Your task to perform on an android device: Open my contact list Image 0: 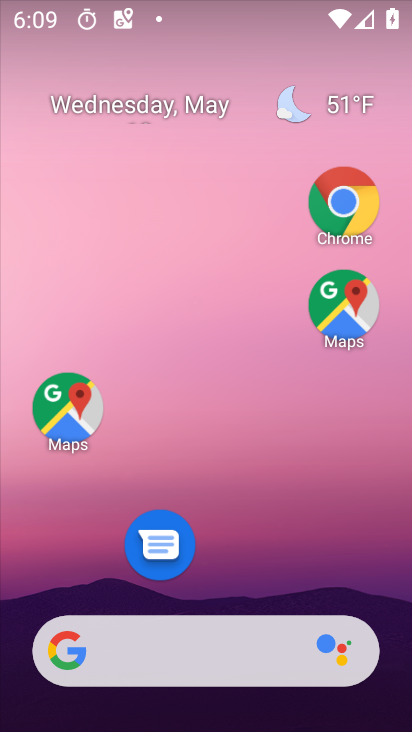
Step 0: drag from (257, 547) to (232, 119)
Your task to perform on an android device: Open my contact list Image 1: 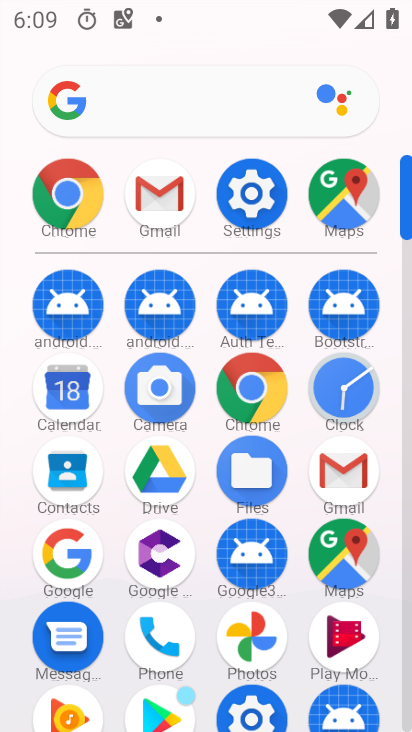
Step 1: click (78, 490)
Your task to perform on an android device: Open my contact list Image 2: 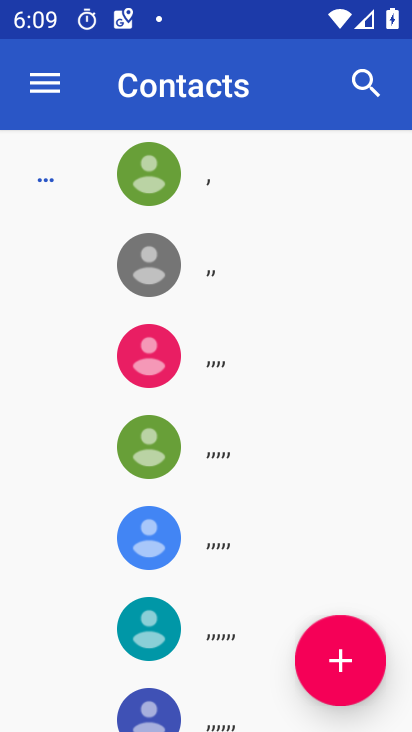
Step 2: task complete